Your task to perform on an android device: Go to notification settings Image 0: 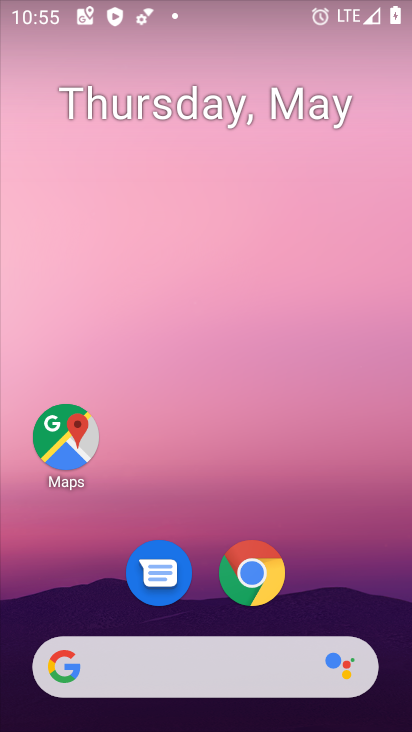
Step 0: drag from (194, 618) to (219, 187)
Your task to perform on an android device: Go to notification settings Image 1: 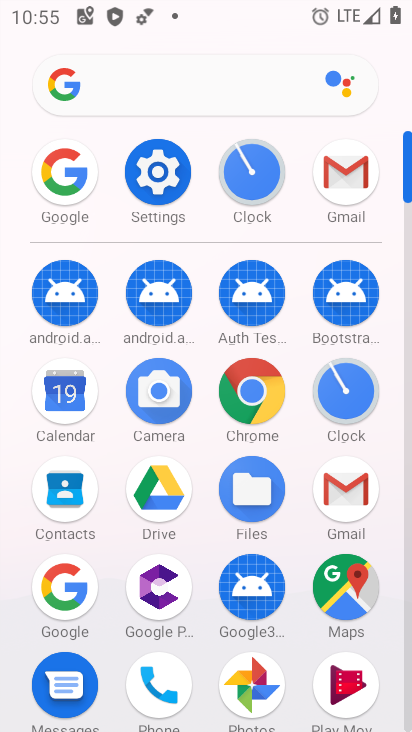
Step 1: click (189, 156)
Your task to perform on an android device: Go to notification settings Image 2: 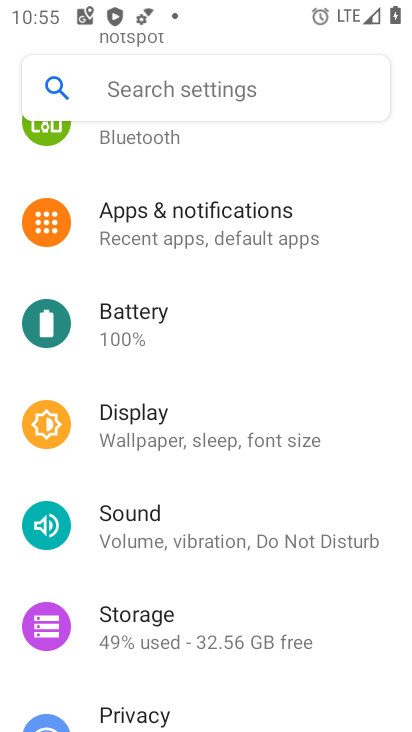
Step 2: click (203, 235)
Your task to perform on an android device: Go to notification settings Image 3: 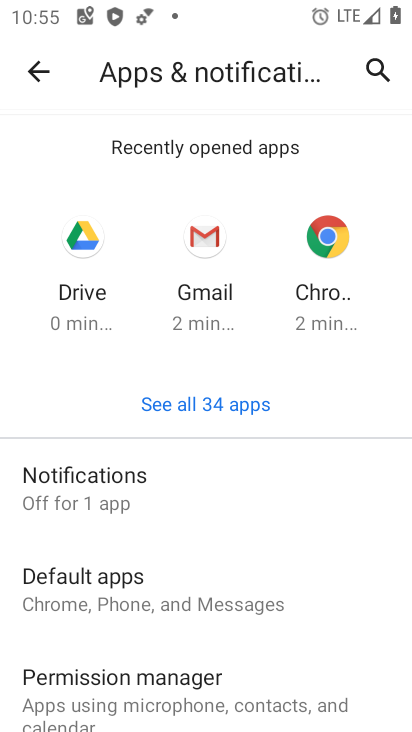
Step 3: click (125, 498)
Your task to perform on an android device: Go to notification settings Image 4: 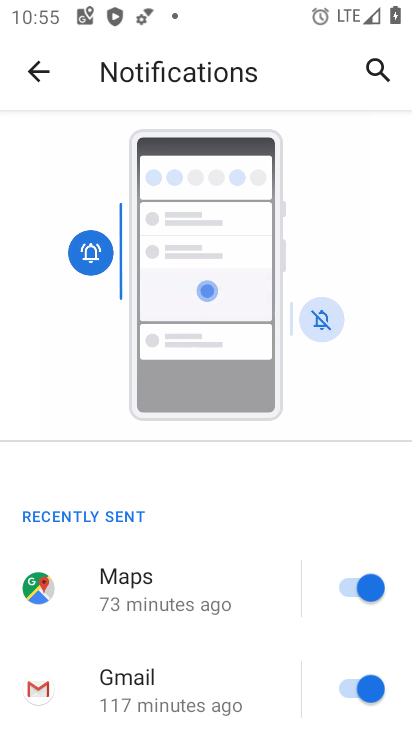
Step 4: task complete